Your task to perform on an android device: turn notification dots on Image 0: 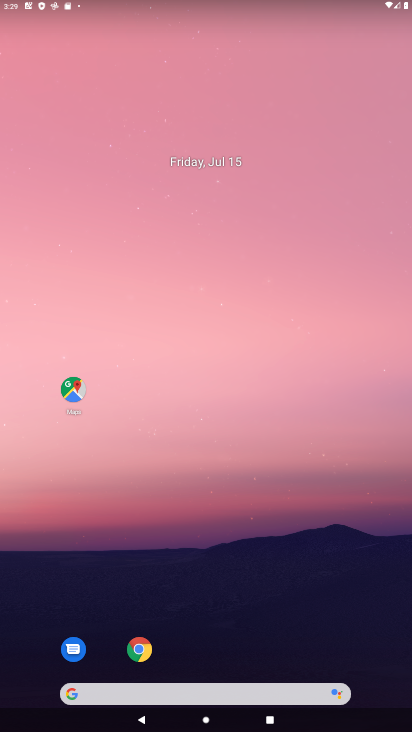
Step 0: drag from (322, 567) to (334, 13)
Your task to perform on an android device: turn notification dots on Image 1: 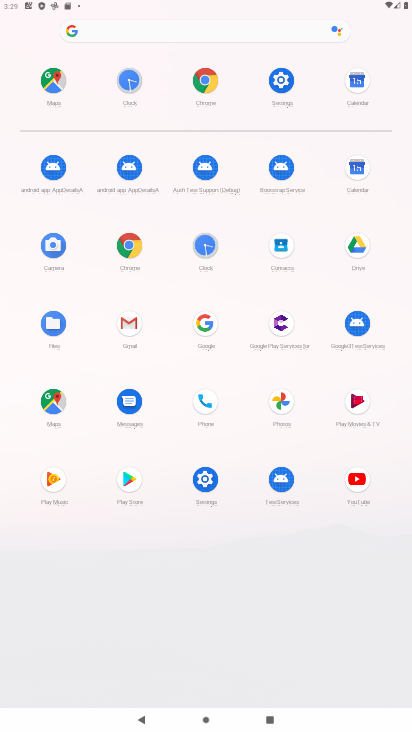
Step 1: click (278, 86)
Your task to perform on an android device: turn notification dots on Image 2: 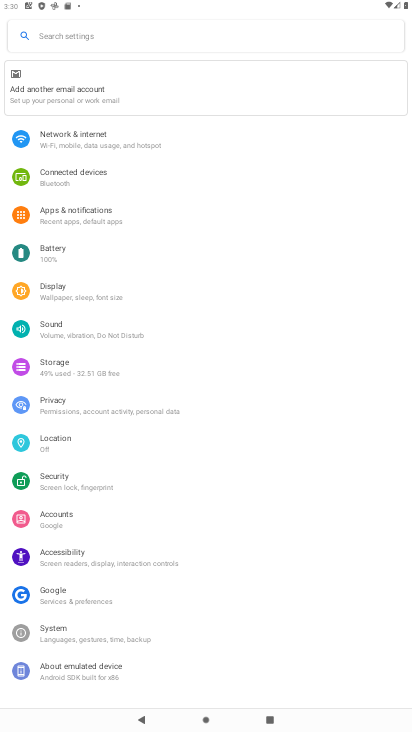
Step 2: click (87, 211)
Your task to perform on an android device: turn notification dots on Image 3: 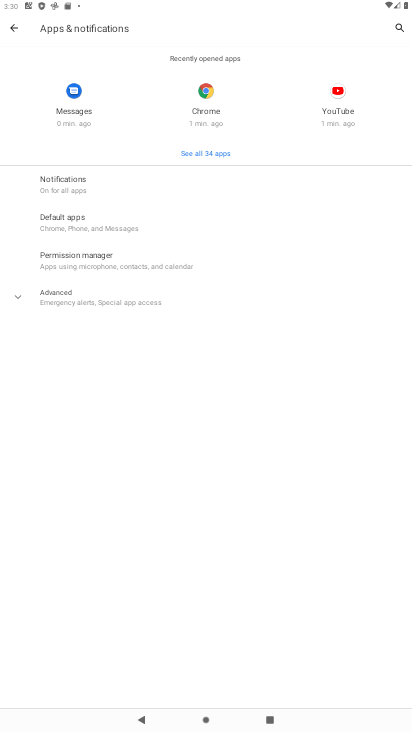
Step 3: click (93, 190)
Your task to perform on an android device: turn notification dots on Image 4: 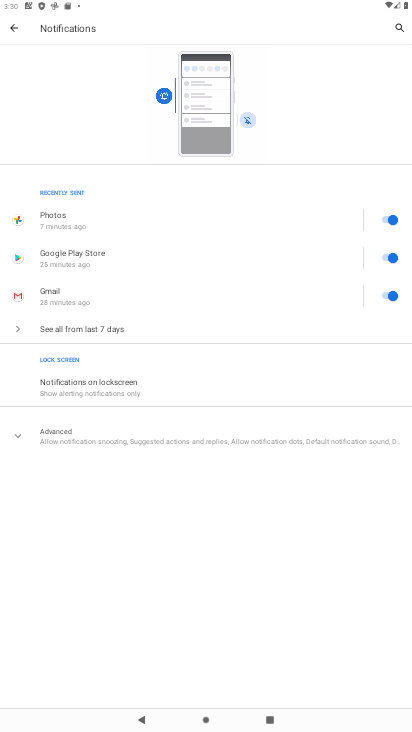
Step 4: click (121, 444)
Your task to perform on an android device: turn notification dots on Image 5: 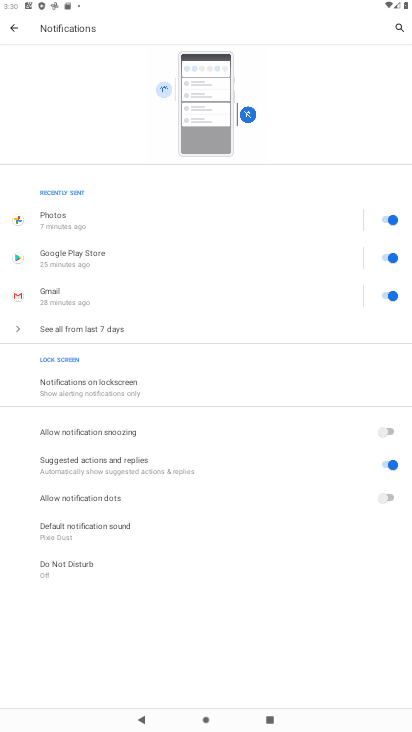
Step 5: click (389, 496)
Your task to perform on an android device: turn notification dots on Image 6: 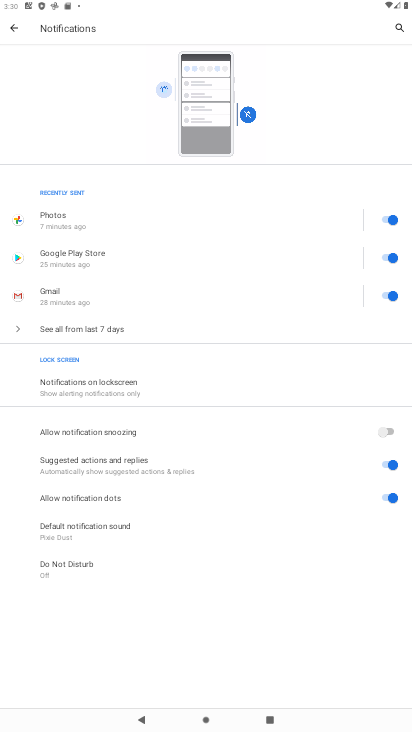
Step 6: task complete